Your task to perform on an android device: open a bookmark in the chrome app Image 0: 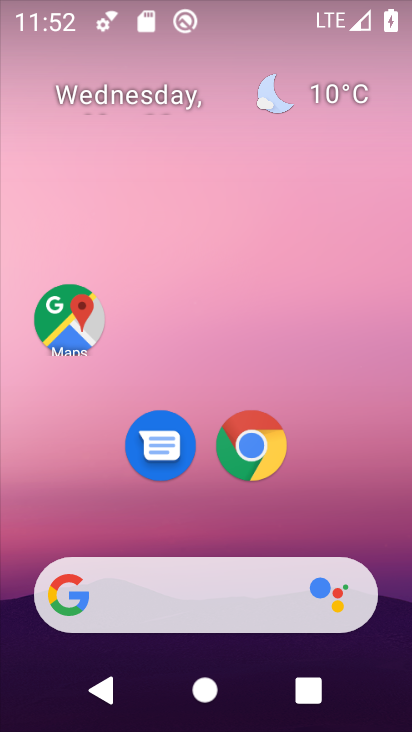
Step 0: click (222, 449)
Your task to perform on an android device: open a bookmark in the chrome app Image 1: 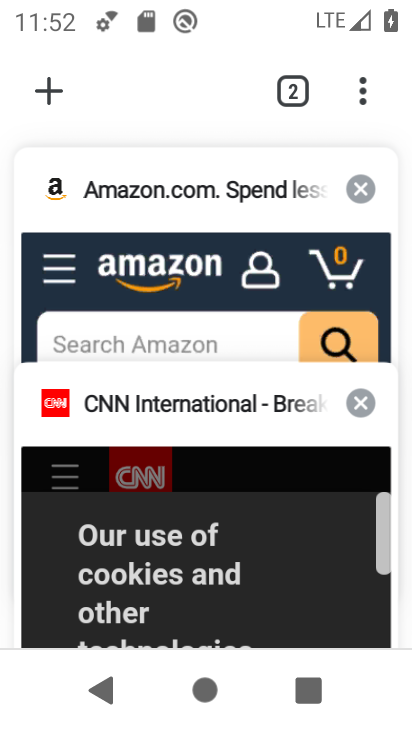
Step 1: click (363, 81)
Your task to perform on an android device: open a bookmark in the chrome app Image 2: 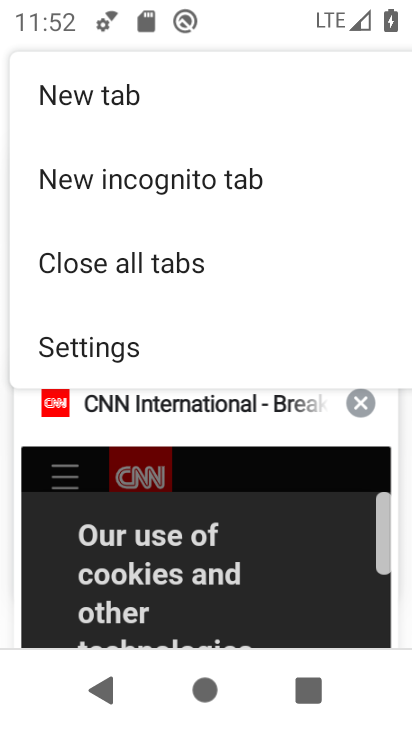
Step 2: drag from (198, 110) to (194, 19)
Your task to perform on an android device: open a bookmark in the chrome app Image 3: 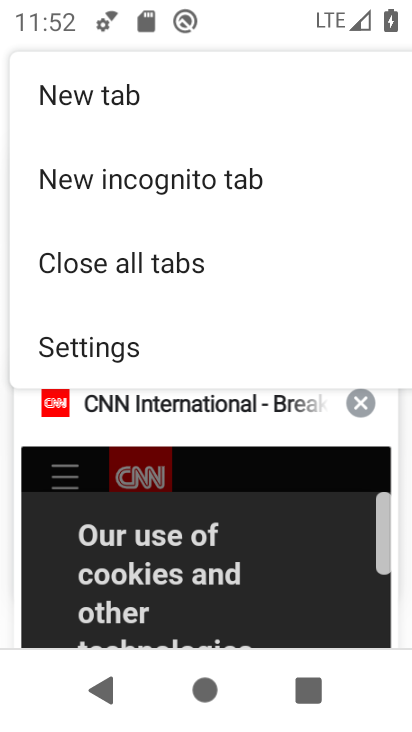
Step 3: click (173, 544)
Your task to perform on an android device: open a bookmark in the chrome app Image 4: 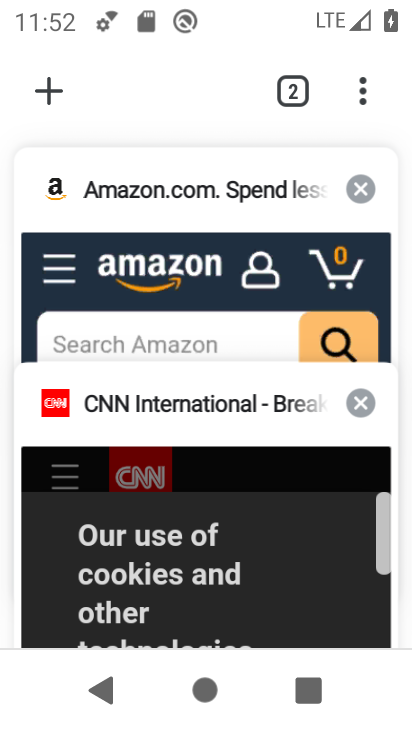
Step 4: click (179, 461)
Your task to perform on an android device: open a bookmark in the chrome app Image 5: 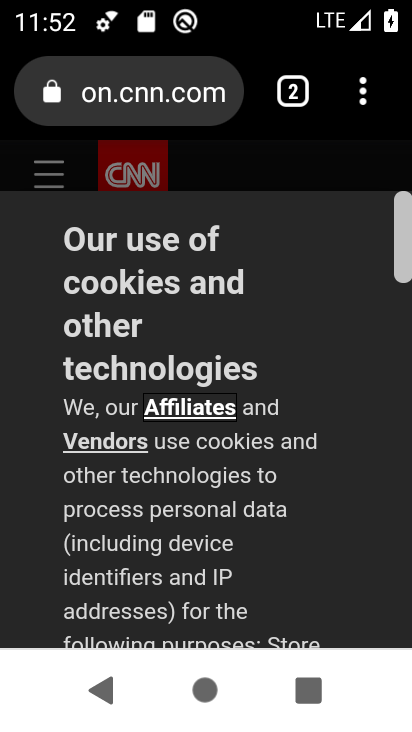
Step 5: task complete